Your task to perform on an android device: empty trash in the gmail app Image 0: 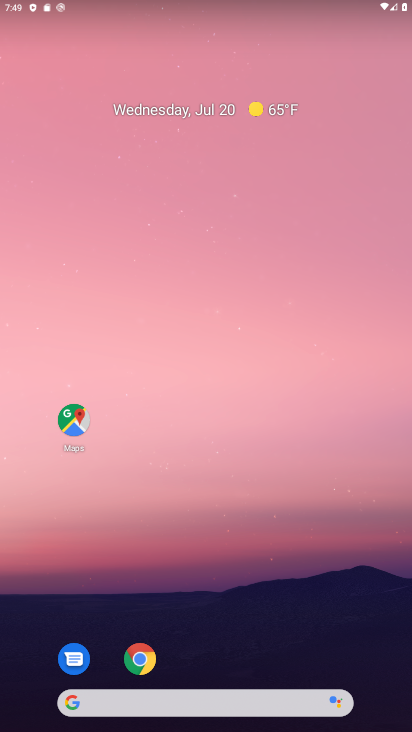
Step 0: click (250, 55)
Your task to perform on an android device: empty trash in the gmail app Image 1: 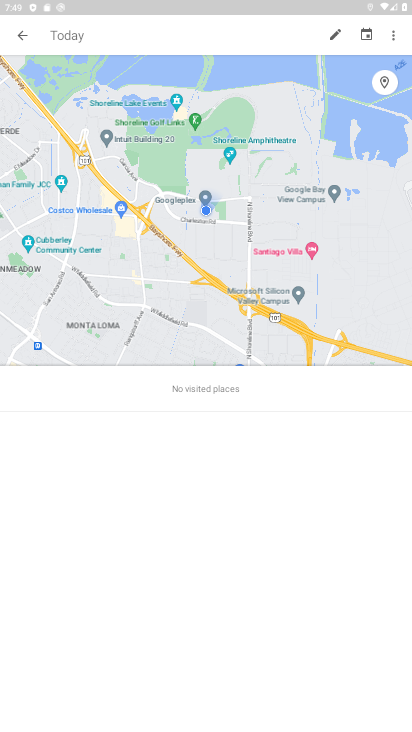
Step 1: press home button
Your task to perform on an android device: empty trash in the gmail app Image 2: 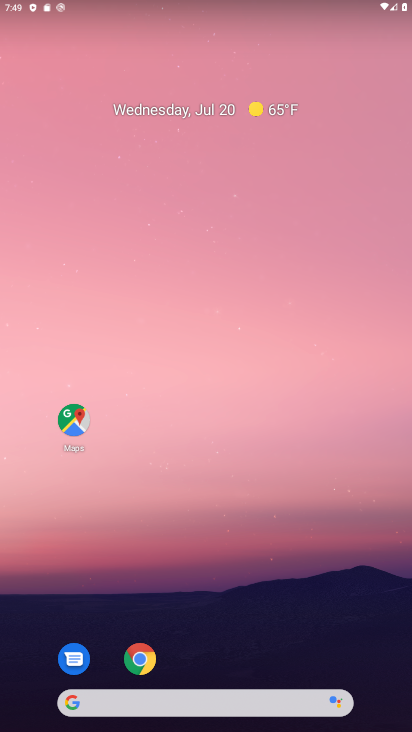
Step 2: drag from (222, 669) to (139, 138)
Your task to perform on an android device: empty trash in the gmail app Image 3: 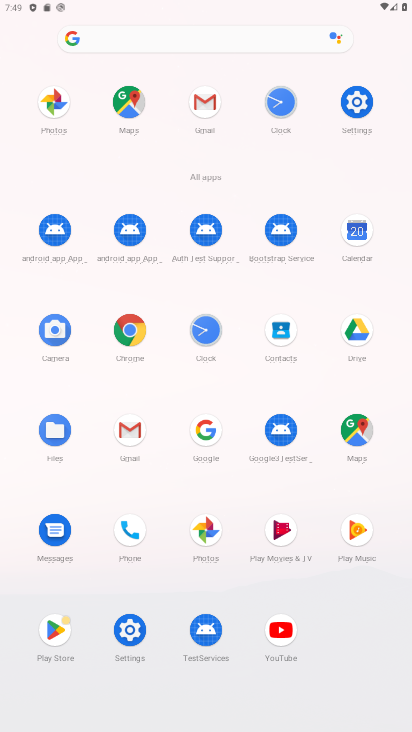
Step 3: click (201, 106)
Your task to perform on an android device: empty trash in the gmail app Image 4: 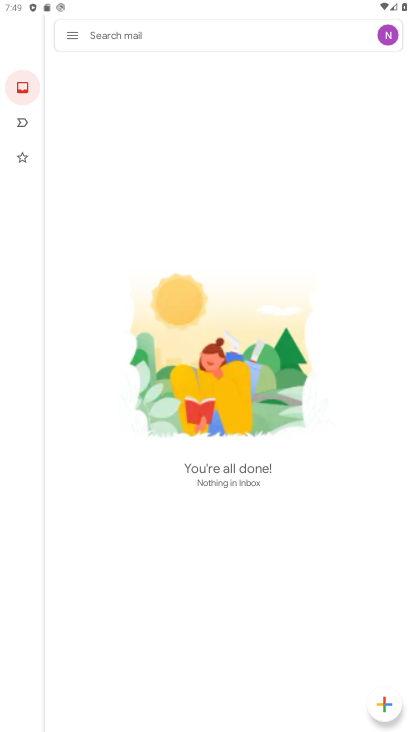
Step 4: click (66, 38)
Your task to perform on an android device: empty trash in the gmail app Image 5: 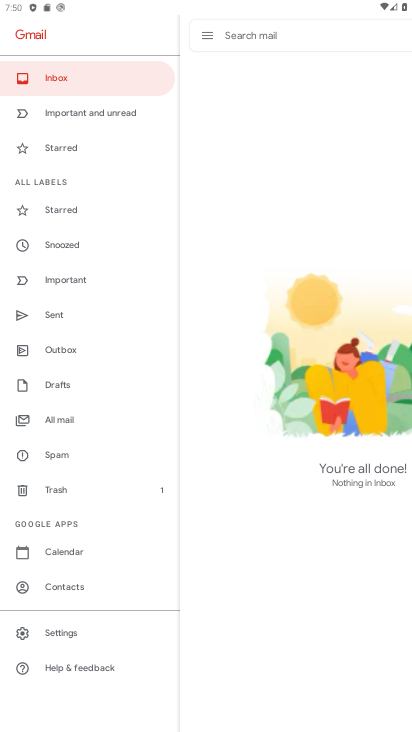
Step 5: click (92, 487)
Your task to perform on an android device: empty trash in the gmail app Image 6: 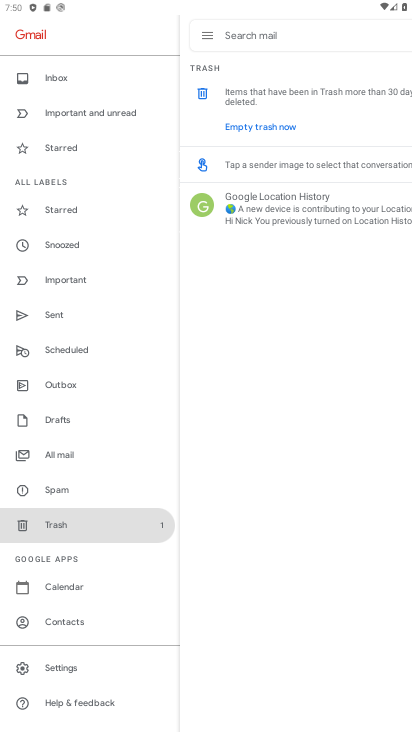
Step 6: click (200, 97)
Your task to perform on an android device: empty trash in the gmail app Image 7: 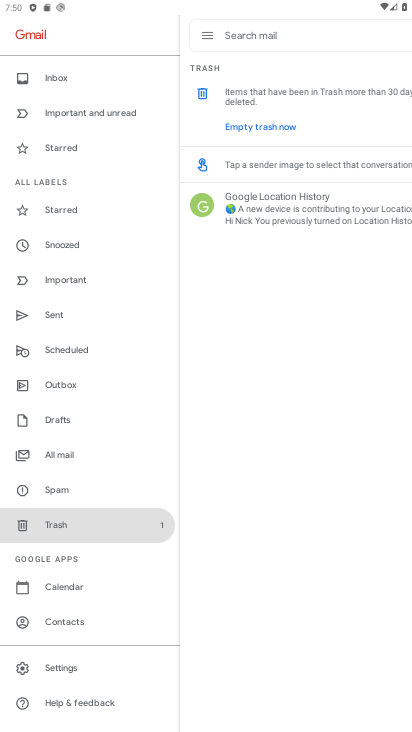
Step 7: click (259, 126)
Your task to perform on an android device: empty trash in the gmail app Image 8: 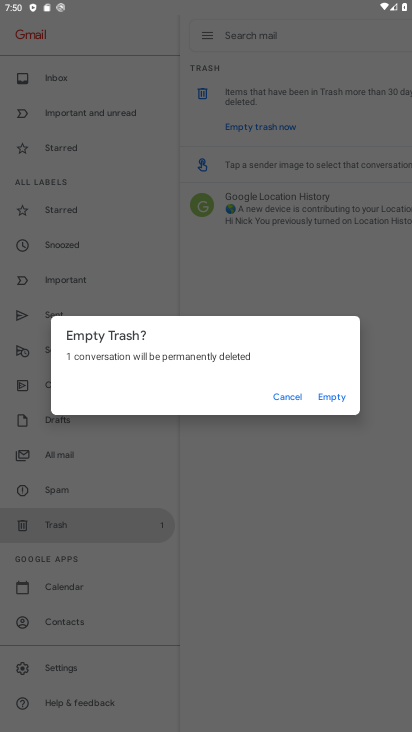
Step 8: click (335, 399)
Your task to perform on an android device: empty trash in the gmail app Image 9: 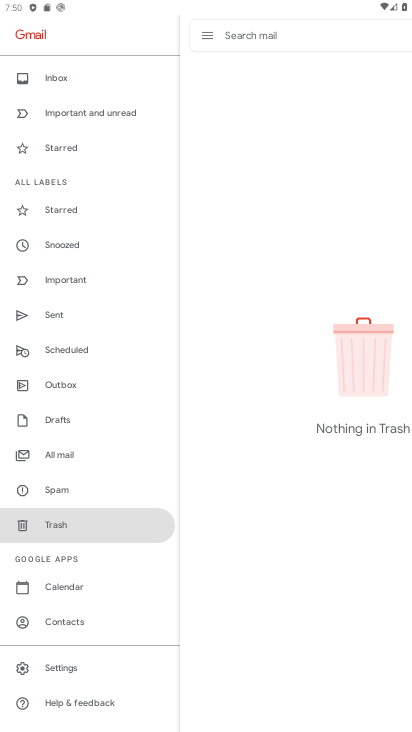
Step 9: task complete